Your task to perform on an android device: open wifi settings Image 0: 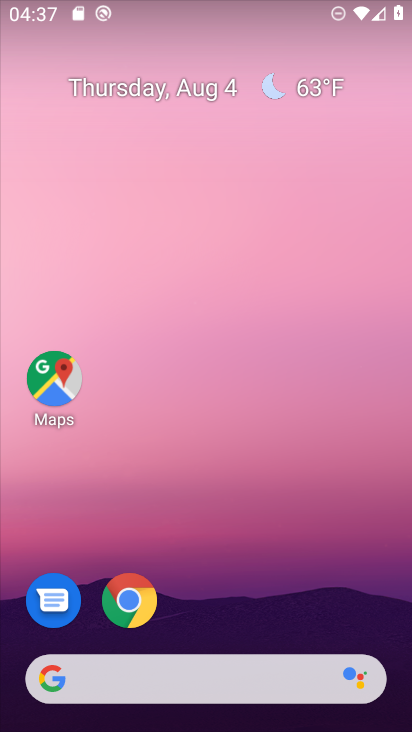
Step 0: drag from (269, 600) to (208, 73)
Your task to perform on an android device: open wifi settings Image 1: 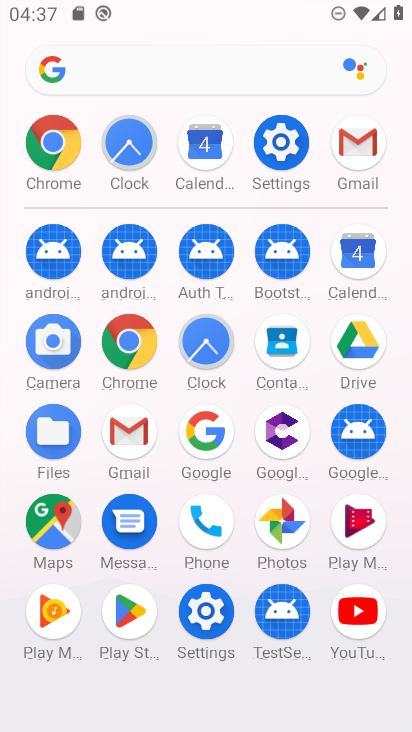
Step 1: click (262, 148)
Your task to perform on an android device: open wifi settings Image 2: 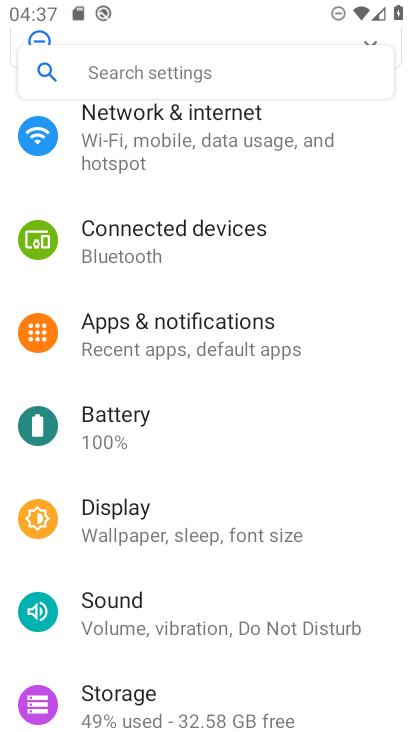
Step 2: drag from (205, 159) to (256, 565)
Your task to perform on an android device: open wifi settings Image 3: 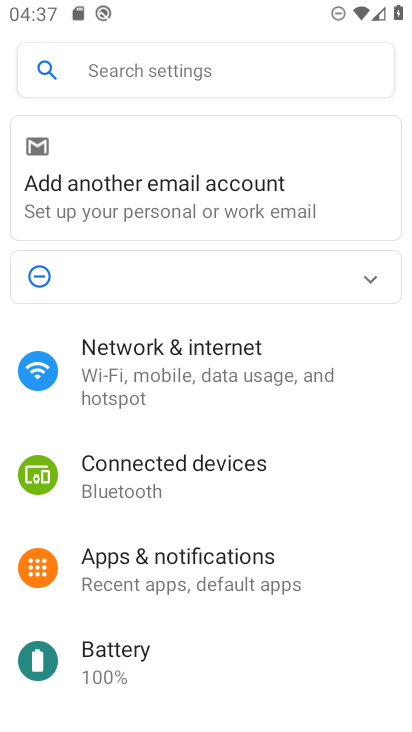
Step 3: click (202, 396)
Your task to perform on an android device: open wifi settings Image 4: 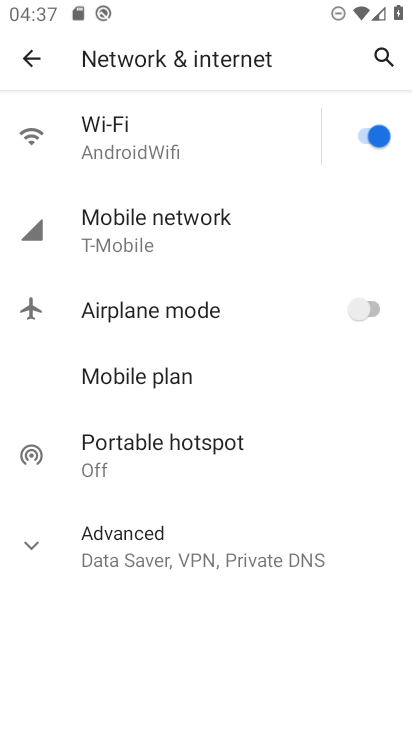
Step 4: click (205, 117)
Your task to perform on an android device: open wifi settings Image 5: 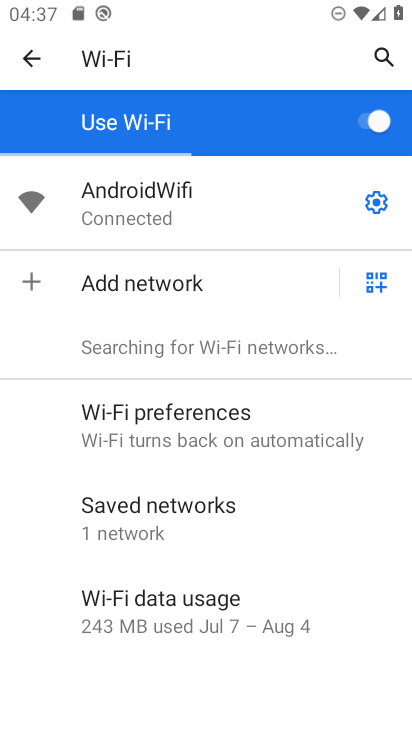
Step 5: click (370, 198)
Your task to perform on an android device: open wifi settings Image 6: 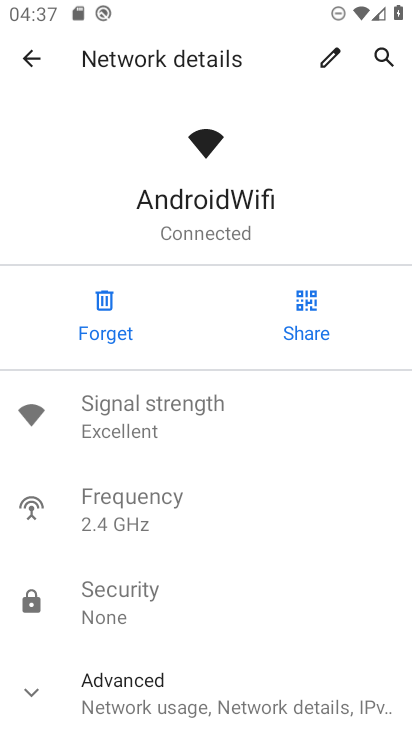
Step 6: task complete